Your task to perform on an android device: Go to battery settings Image 0: 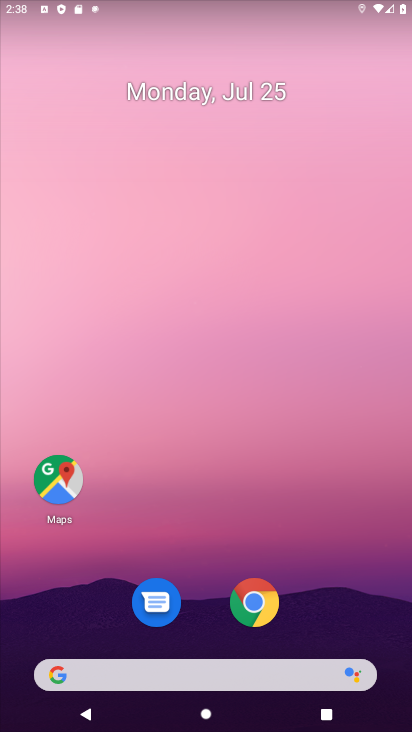
Step 0: drag from (258, 505) to (294, 25)
Your task to perform on an android device: Go to battery settings Image 1: 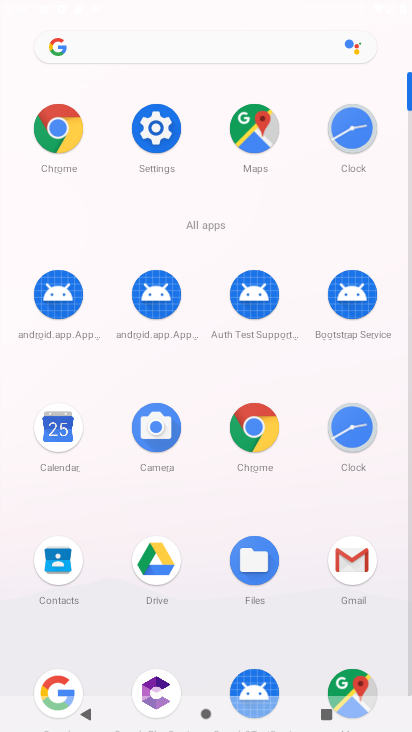
Step 1: click (159, 123)
Your task to perform on an android device: Go to battery settings Image 2: 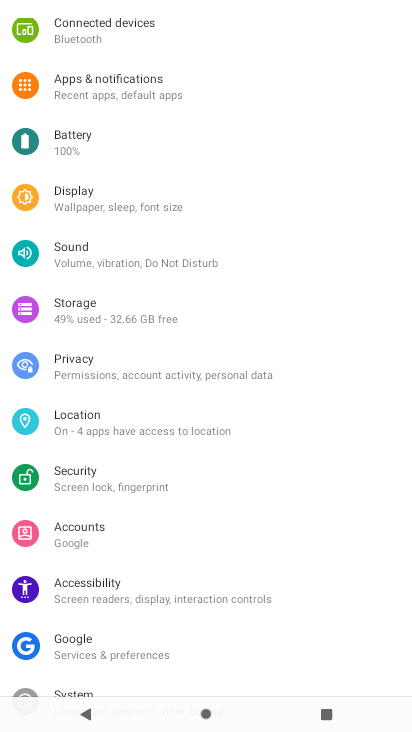
Step 2: click (113, 142)
Your task to perform on an android device: Go to battery settings Image 3: 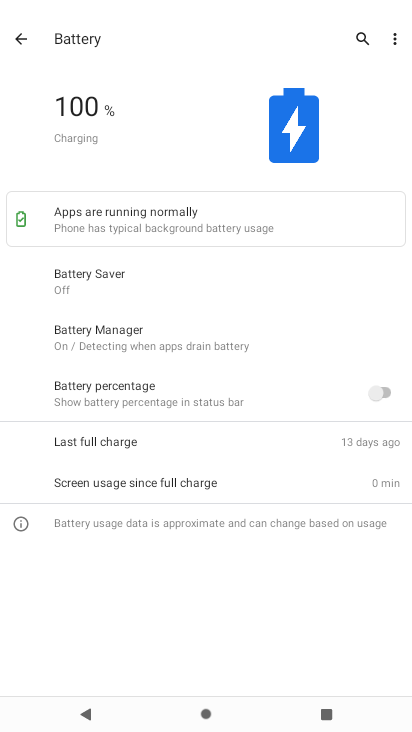
Step 3: task complete